Your task to perform on an android device: Go to Maps Image 0: 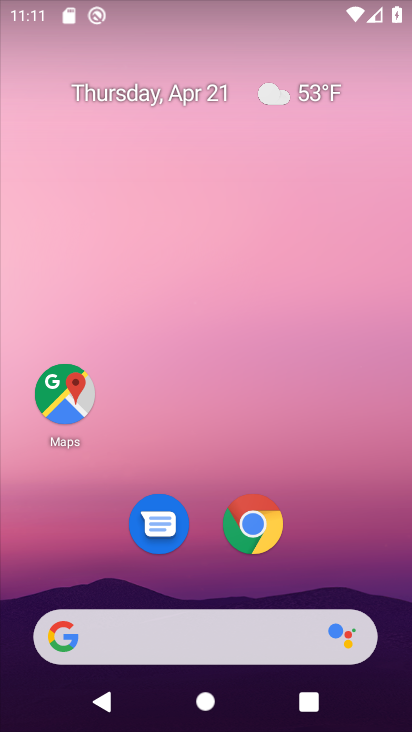
Step 0: click (58, 388)
Your task to perform on an android device: Go to Maps Image 1: 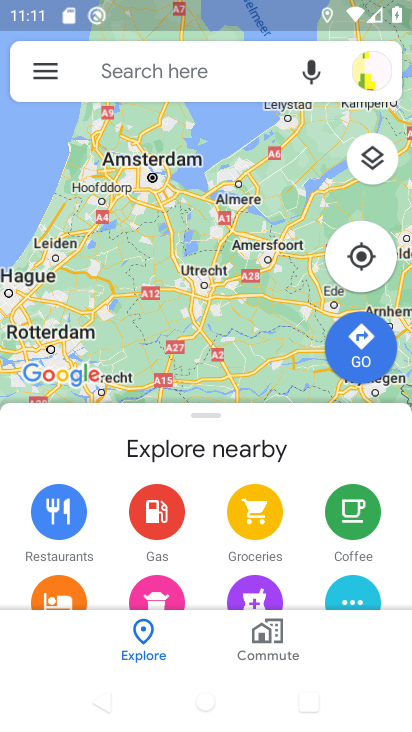
Step 1: task complete